Your task to perform on an android device: Go to sound settings Image 0: 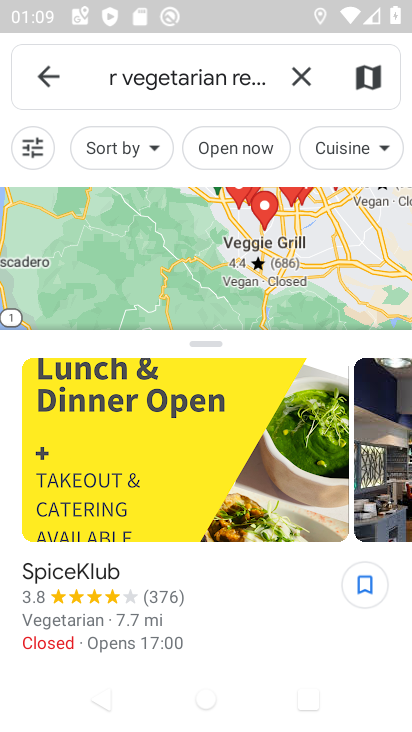
Step 0: press home button
Your task to perform on an android device: Go to sound settings Image 1: 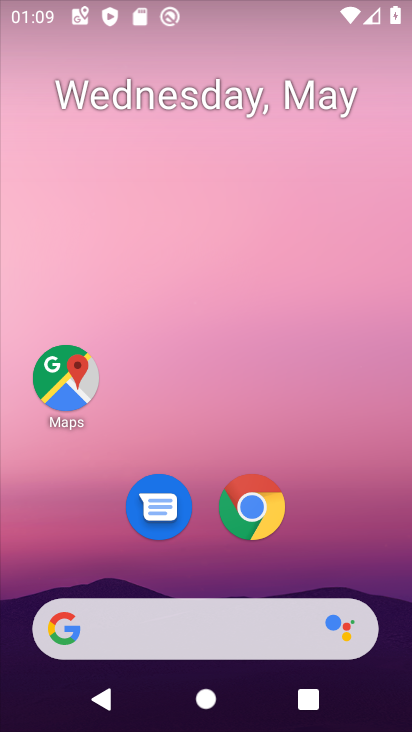
Step 1: drag from (286, 539) to (298, 232)
Your task to perform on an android device: Go to sound settings Image 2: 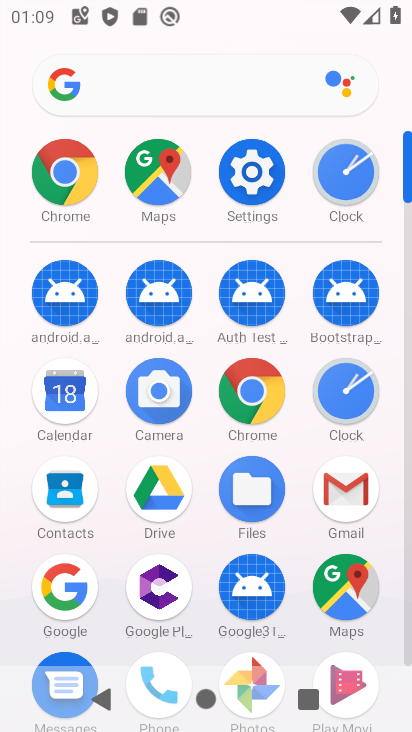
Step 2: click (237, 168)
Your task to perform on an android device: Go to sound settings Image 3: 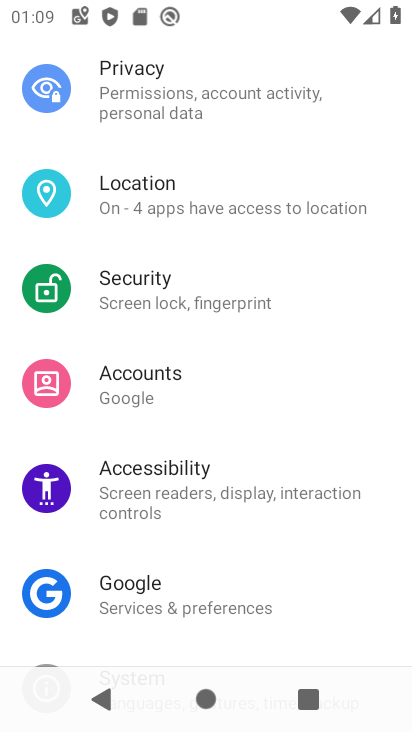
Step 3: drag from (251, 138) to (250, 577)
Your task to perform on an android device: Go to sound settings Image 4: 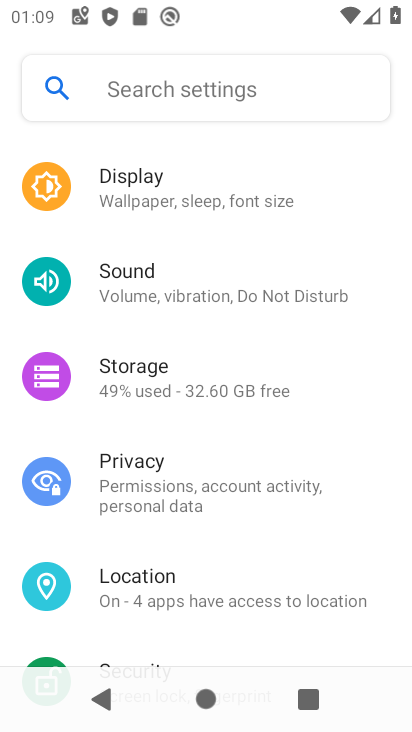
Step 4: click (204, 308)
Your task to perform on an android device: Go to sound settings Image 5: 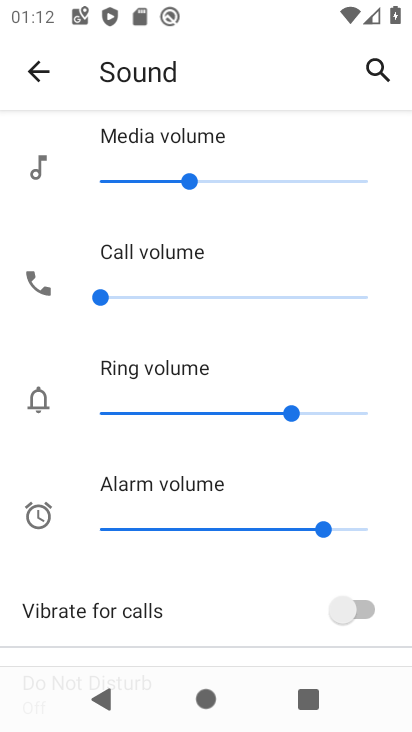
Step 5: task complete